Your task to perform on an android device: allow cookies in the chrome app Image 0: 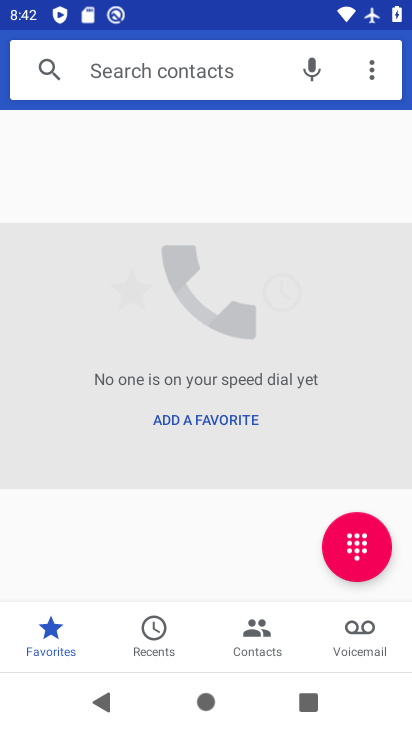
Step 0: press home button
Your task to perform on an android device: allow cookies in the chrome app Image 1: 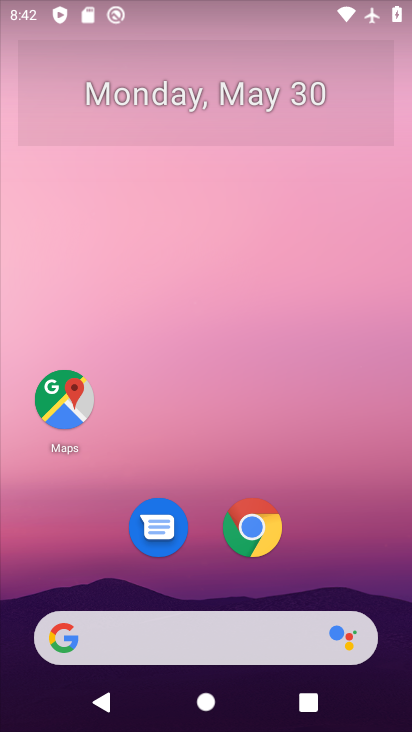
Step 1: click (249, 528)
Your task to perform on an android device: allow cookies in the chrome app Image 2: 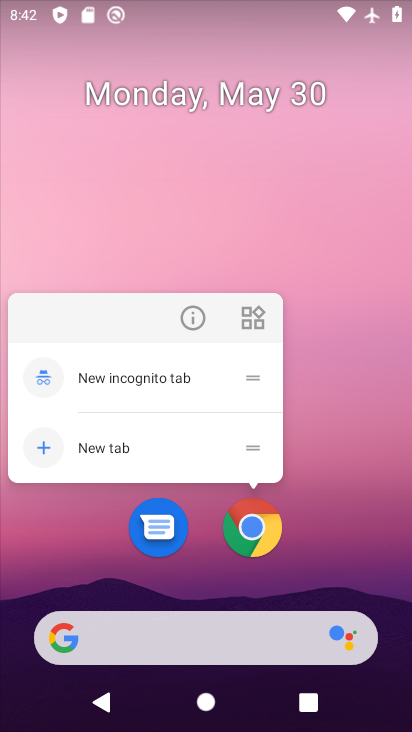
Step 2: click (267, 525)
Your task to perform on an android device: allow cookies in the chrome app Image 3: 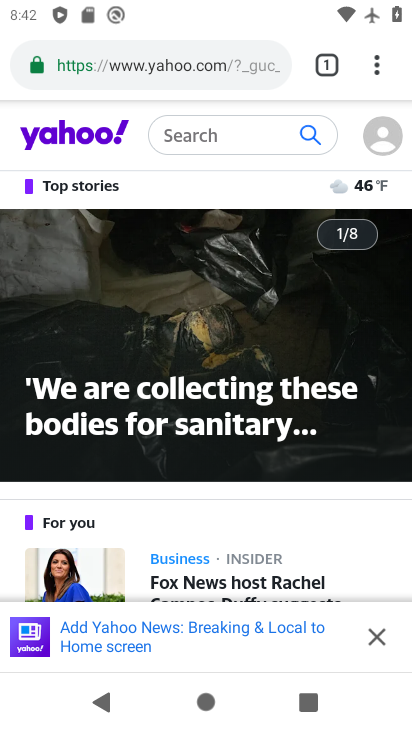
Step 3: click (379, 61)
Your task to perform on an android device: allow cookies in the chrome app Image 4: 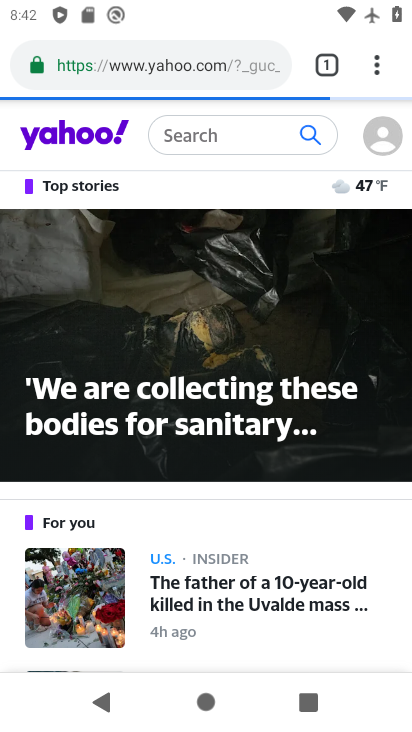
Step 4: click (379, 61)
Your task to perform on an android device: allow cookies in the chrome app Image 5: 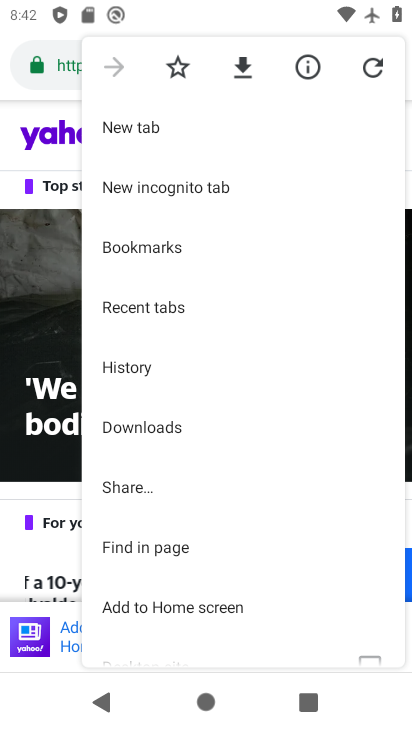
Step 5: drag from (207, 573) to (187, 327)
Your task to perform on an android device: allow cookies in the chrome app Image 6: 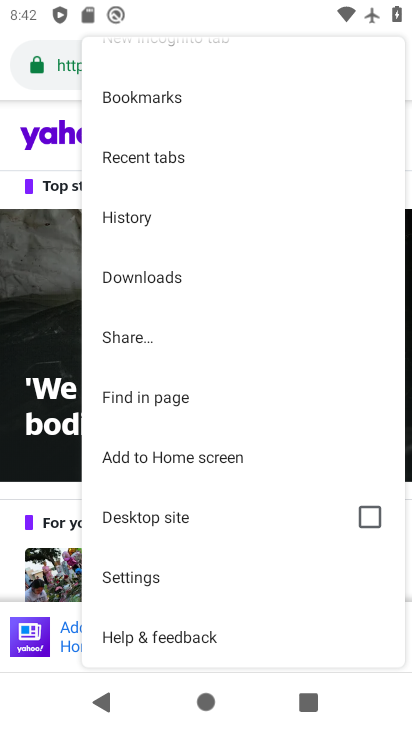
Step 6: click (156, 579)
Your task to perform on an android device: allow cookies in the chrome app Image 7: 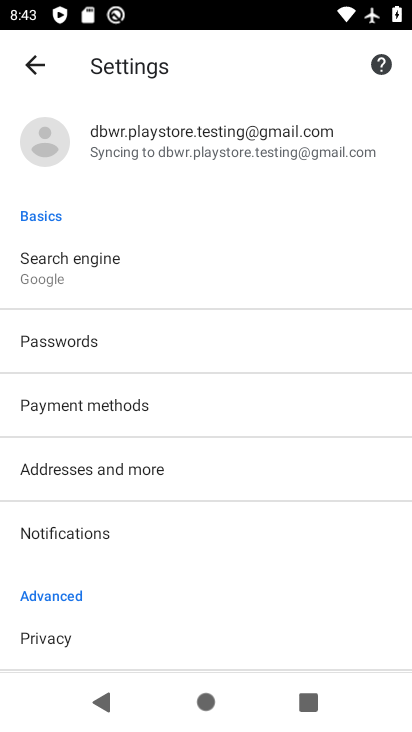
Step 7: drag from (164, 628) to (145, 152)
Your task to perform on an android device: allow cookies in the chrome app Image 8: 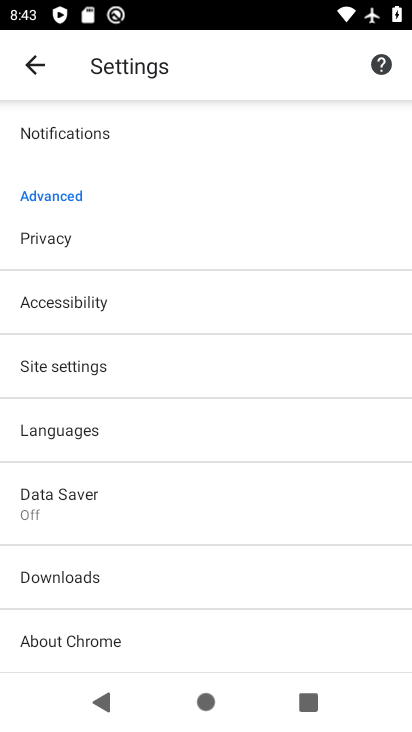
Step 8: click (86, 367)
Your task to perform on an android device: allow cookies in the chrome app Image 9: 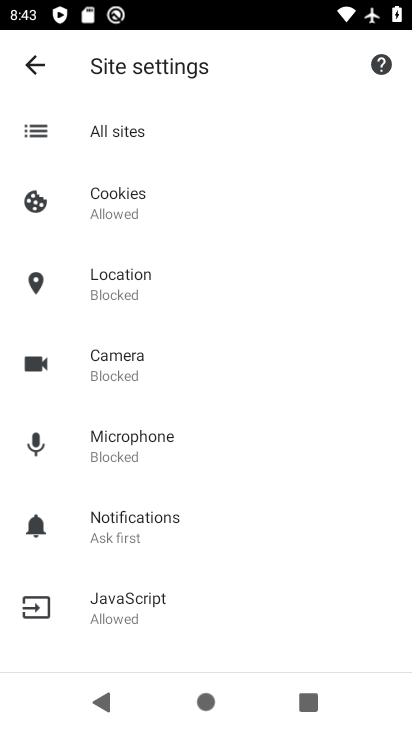
Step 9: click (177, 191)
Your task to perform on an android device: allow cookies in the chrome app Image 10: 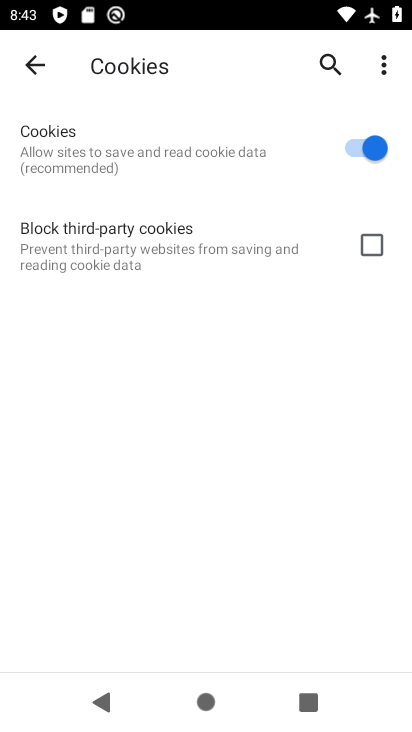
Step 10: task complete